Your task to perform on an android device: turn on bluetooth scan Image 0: 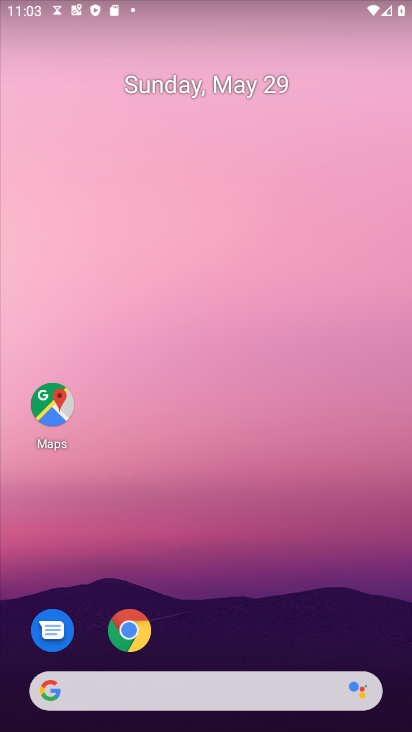
Step 0: drag from (241, 536) to (213, 8)
Your task to perform on an android device: turn on bluetooth scan Image 1: 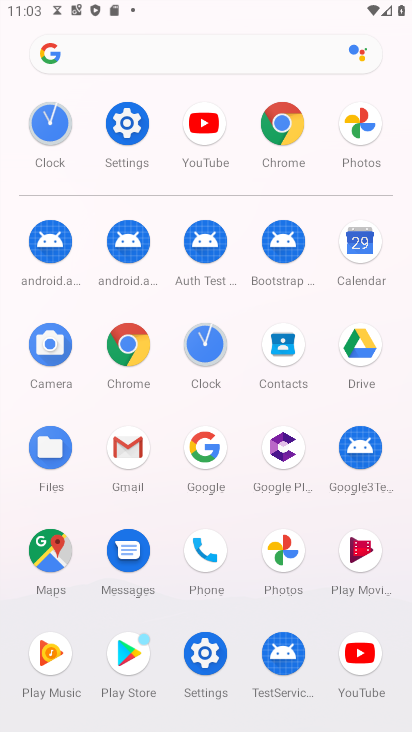
Step 1: click (143, 134)
Your task to perform on an android device: turn on bluetooth scan Image 2: 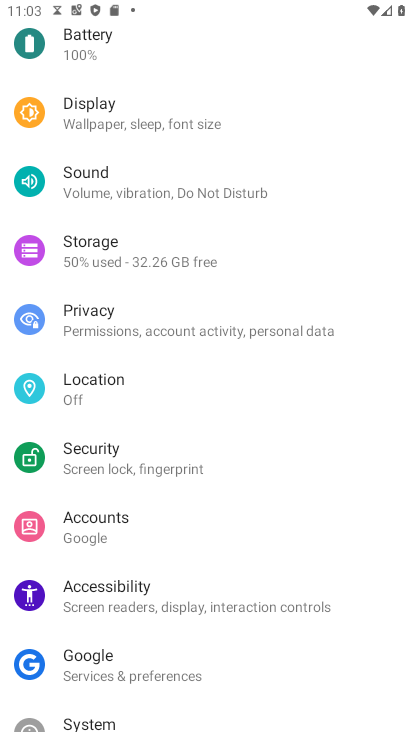
Step 2: drag from (183, 156) to (212, 651)
Your task to perform on an android device: turn on bluetooth scan Image 3: 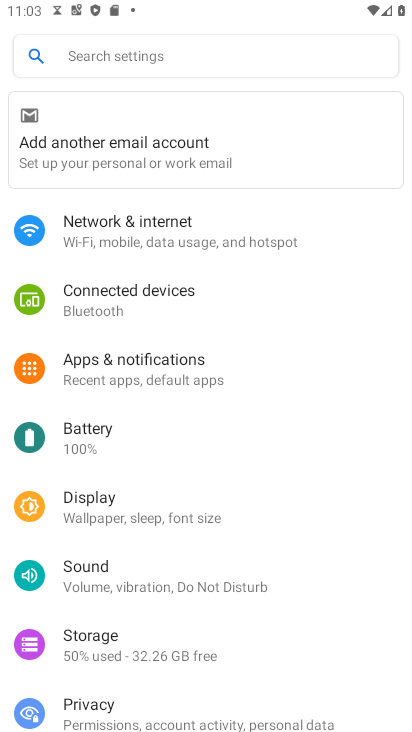
Step 3: click (188, 247)
Your task to perform on an android device: turn on bluetooth scan Image 4: 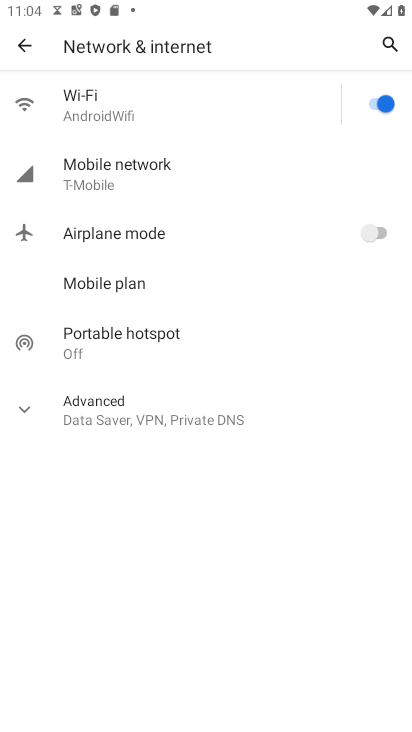
Step 4: click (108, 393)
Your task to perform on an android device: turn on bluetooth scan Image 5: 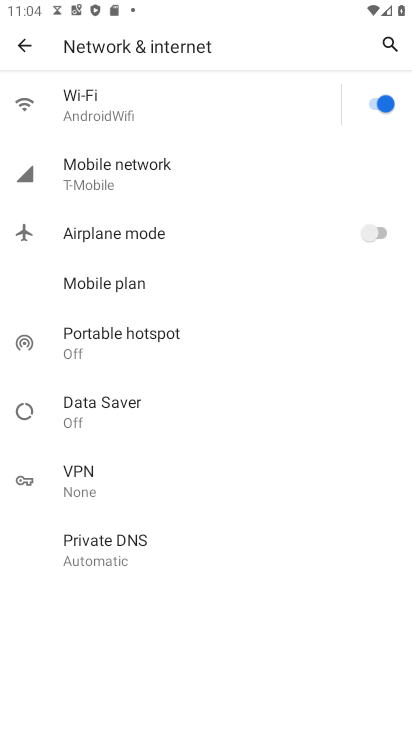
Step 5: press back button
Your task to perform on an android device: turn on bluetooth scan Image 6: 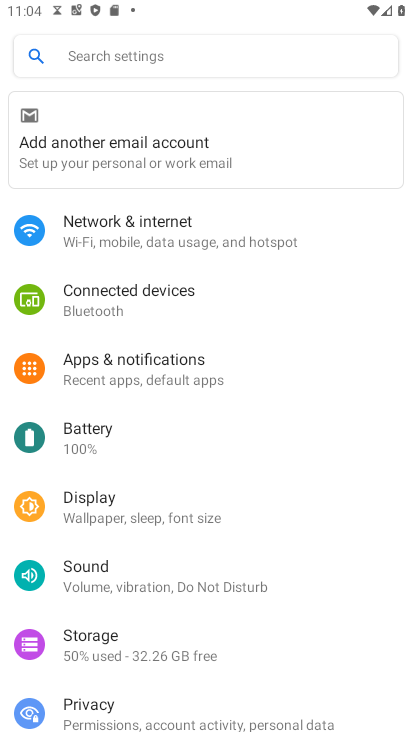
Step 6: drag from (220, 564) to (308, 161)
Your task to perform on an android device: turn on bluetooth scan Image 7: 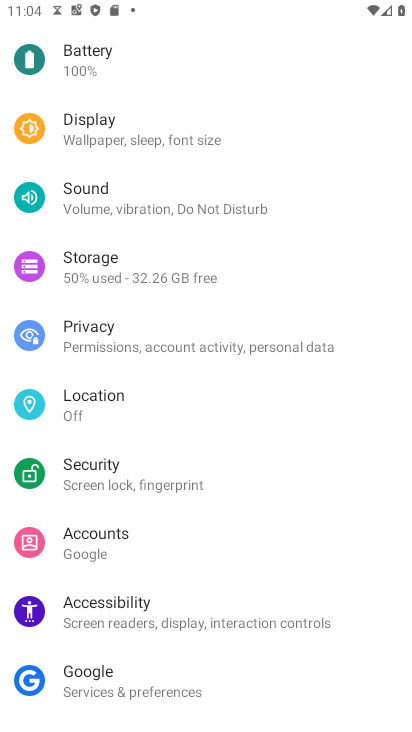
Step 7: drag from (265, 556) to (299, 133)
Your task to perform on an android device: turn on bluetooth scan Image 8: 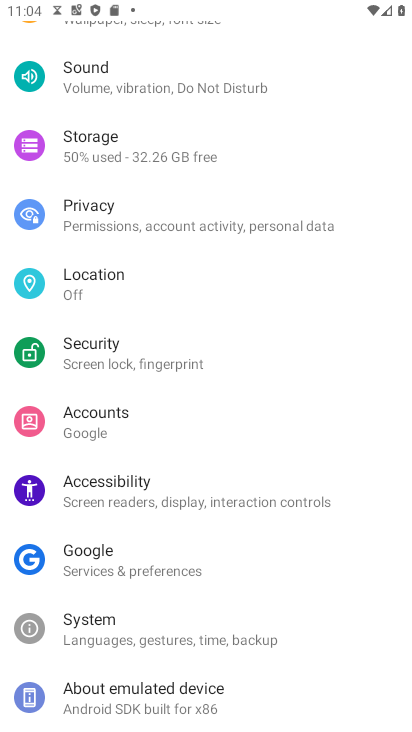
Step 8: drag from (252, 485) to (284, 140)
Your task to perform on an android device: turn on bluetooth scan Image 9: 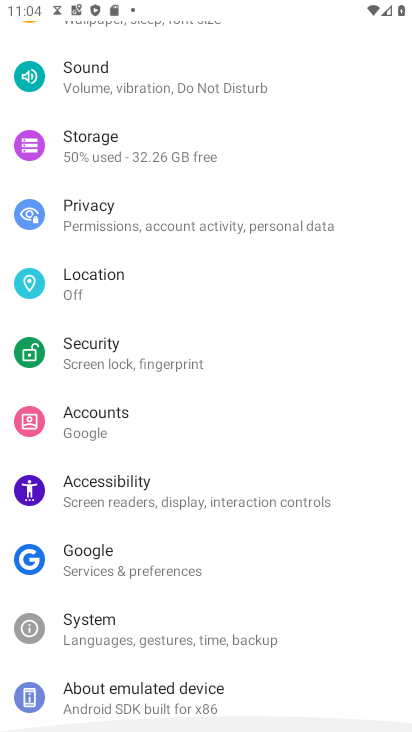
Step 9: drag from (284, 125) to (261, 592)
Your task to perform on an android device: turn on bluetooth scan Image 10: 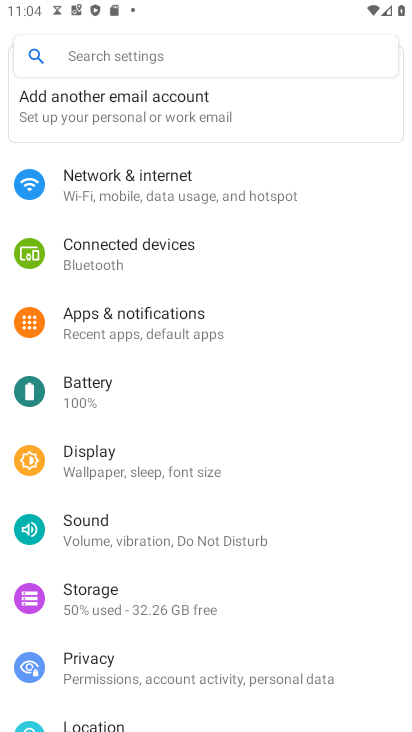
Step 10: drag from (247, 94) to (267, 542)
Your task to perform on an android device: turn on bluetooth scan Image 11: 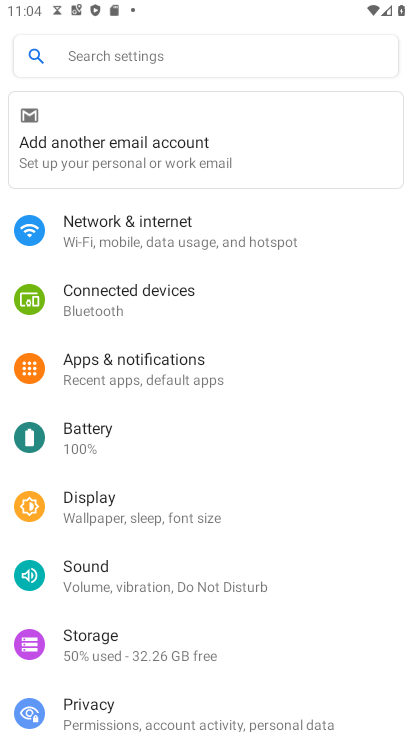
Step 11: drag from (224, 51) to (249, 652)
Your task to perform on an android device: turn on bluetooth scan Image 12: 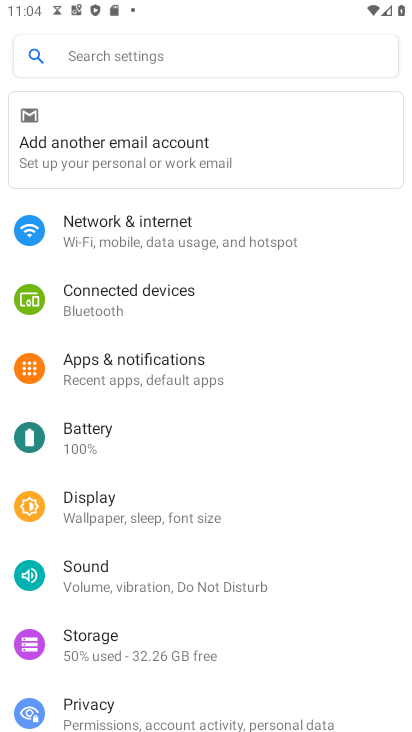
Step 12: drag from (211, 19) to (242, 629)
Your task to perform on an android device: turn on bluetooth scan Image 13: 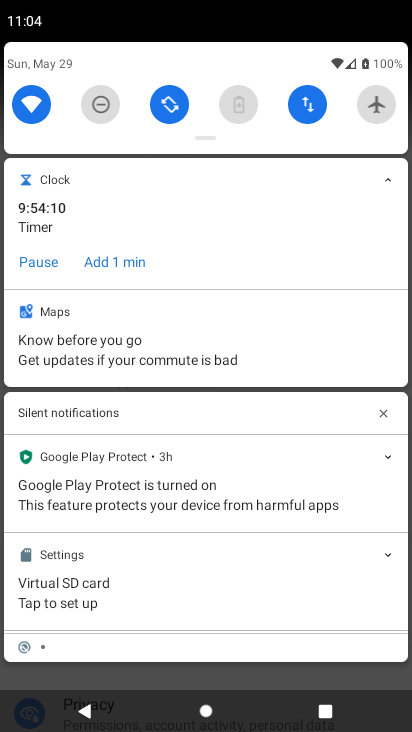
Step 13: drag from (189, 132) to (188, 636)
Your task to perform on an android device: turn on bluetooth scan Image 14: 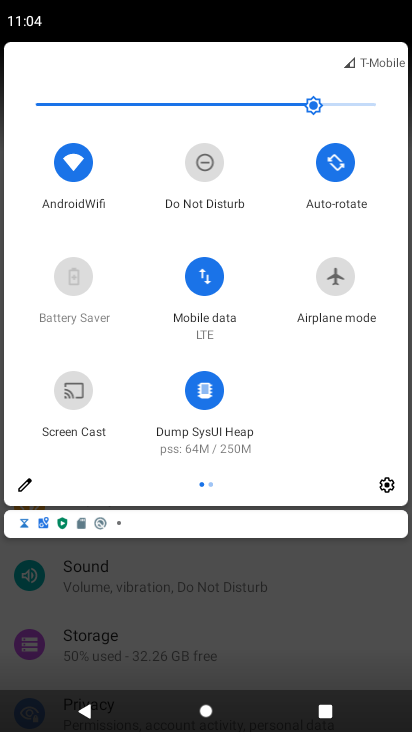
Step 14: drag from (355, 356) to (168, 344)
Your task to perform on an android device: turn on bluetooth scan Image 15: 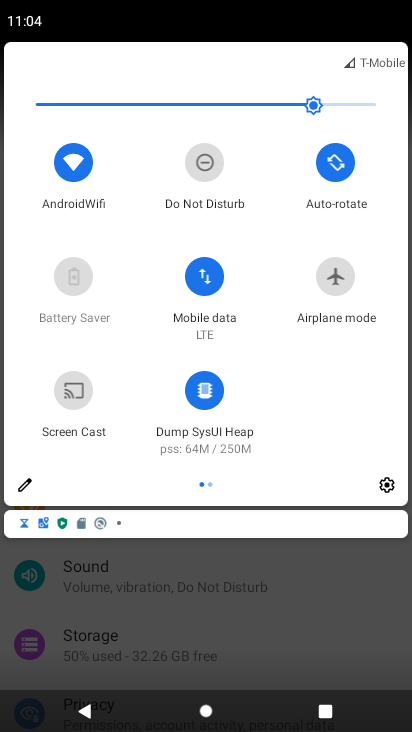
Step 15: drag from (350, 383) to (83, 364)
Your task to perform on an android device: turn on bluetooth scan Image 16: 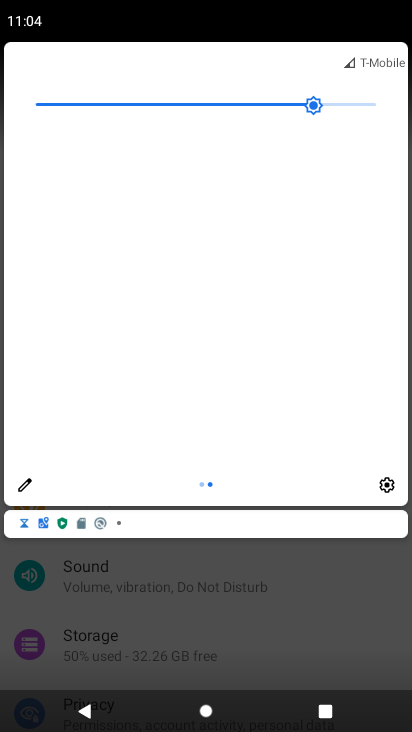
Step 16: drag from (75, 380) to (360, 393)
Your task to perform on an android device: turn on bluetooth scan Image 17: 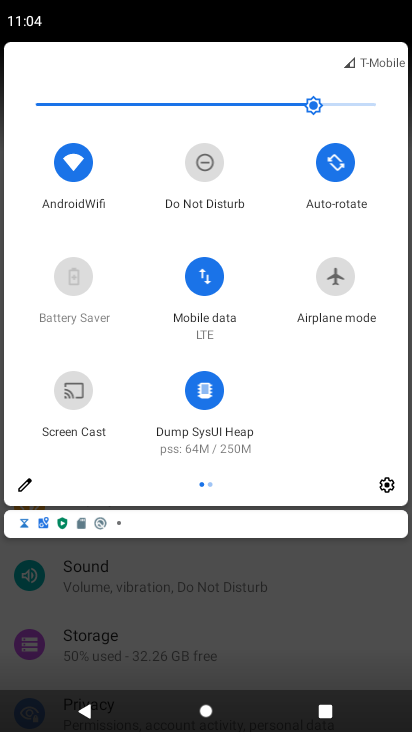
Step 17: drag from (384, 380) to (65, 345)
Your task to perform on an android device: turn on bluetooth scan Image 18: 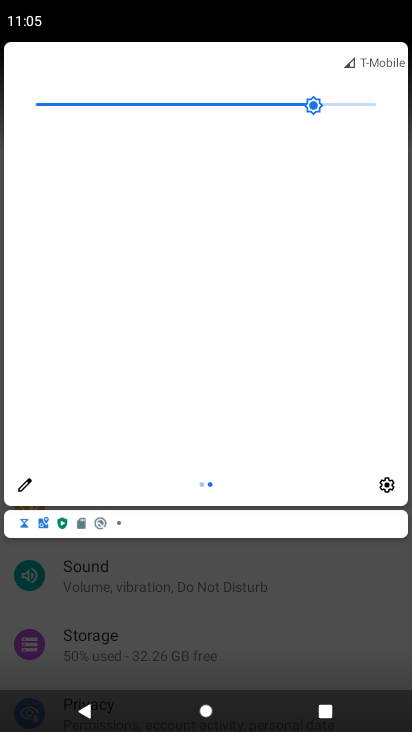
Step 18: press home button
Your task to perform on an android device: turn on bluetooth scan Image 19: 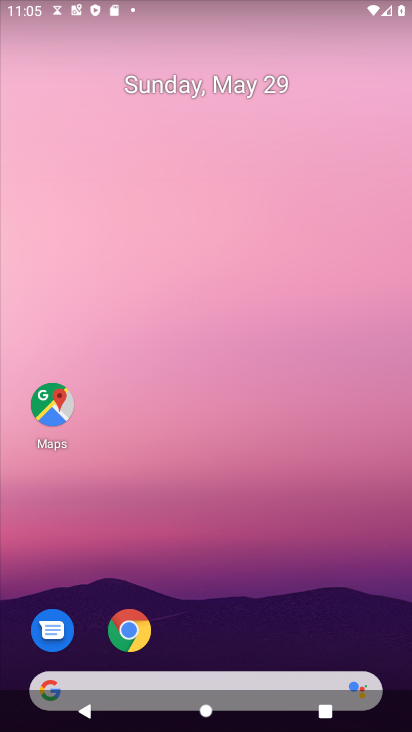
Step 19: drag from (151, 0) to (189, 571)
Your task to perform on an android device: turn on bluetooth scan Image 20: 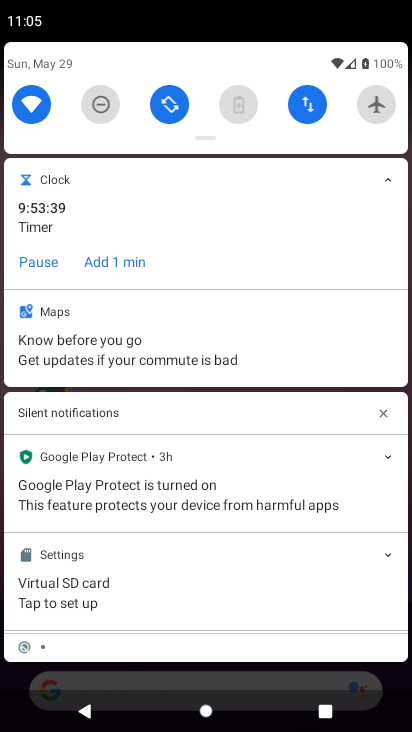
Step 20: drag from (277, 151) to (292, 679)
Your task to perform on an android device: turn on bluetooth scan Image 21: 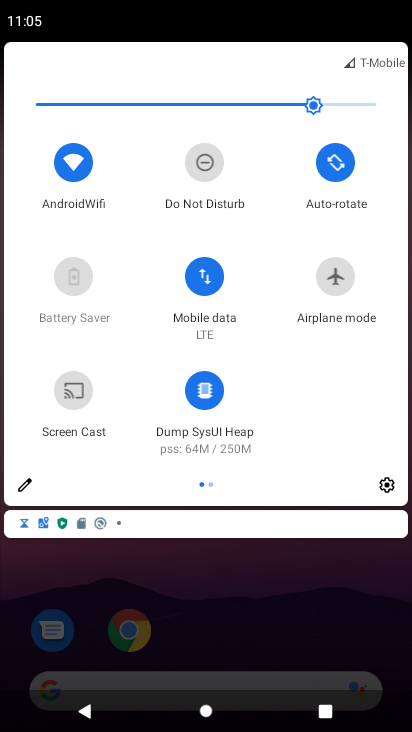
Step 21: drag from (308, 377) to (56, 401)
Your task to perform on an android device: turn on bluetooth scan Image 22: 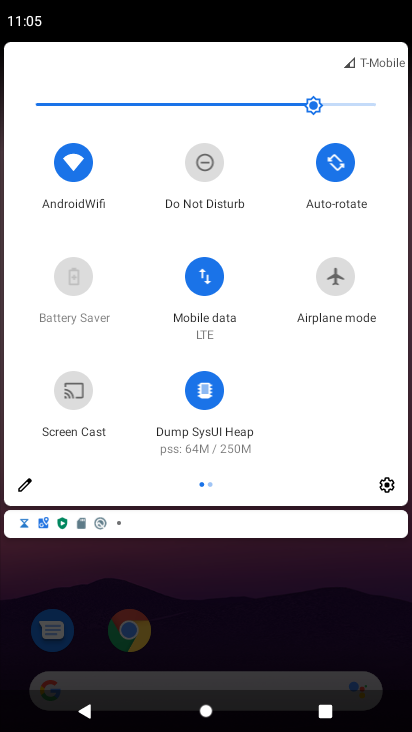
Step 22: drag from (379, 392) to (53, 448)
Your task to perform on an android device: turn on bluetooth scan Image 23: 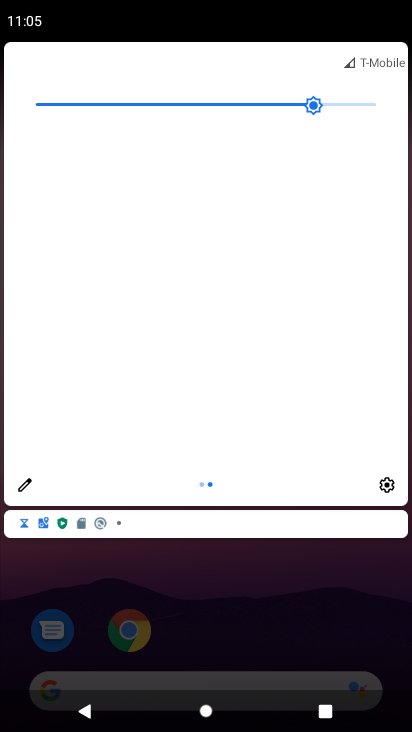
Step 23: click (213, 484)
Your task to perform on an android device: turn on bluetooth scan Image 24: 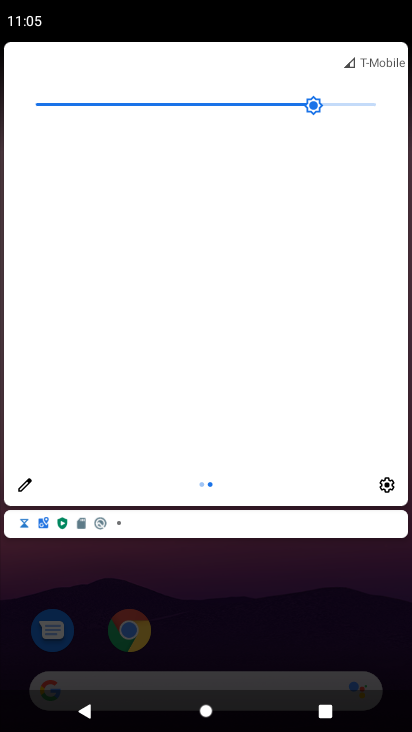
Step 24: click (213, 484)
Your task to perform on an android device: turn on bluetooth scan Image 25: 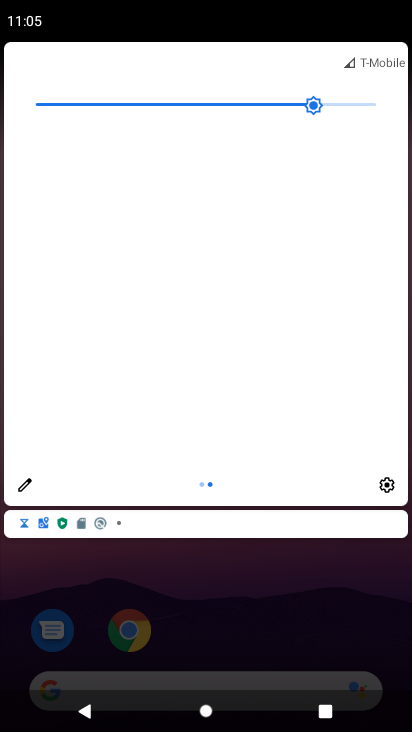
Step 25: click (385, 483)
Your task to perform on an android device: turn on bluetooth scan Image 26: 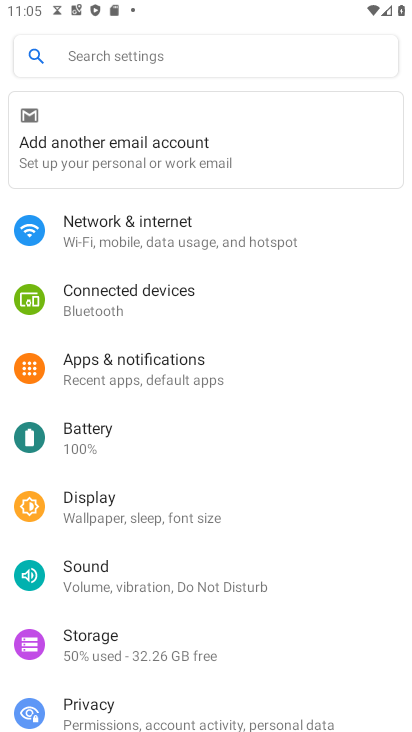
Step 26: click (188, 44)
Your task to perform on an android device: turn on bluetooth scan Image 27: 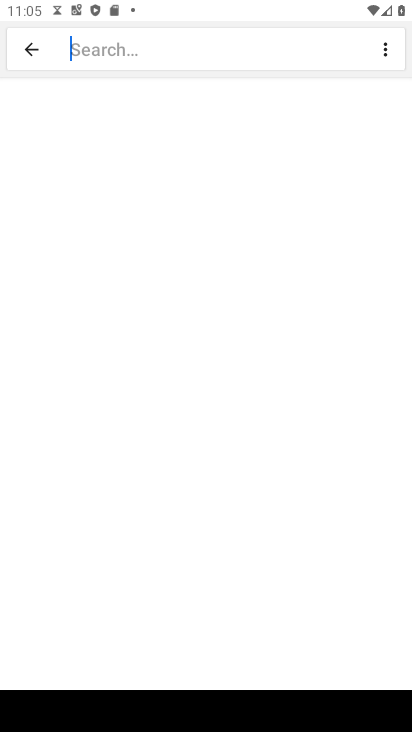
Step 27: type "bluetooth"
Your task to perform on an android device: turn on bluetooth scan Image 28: 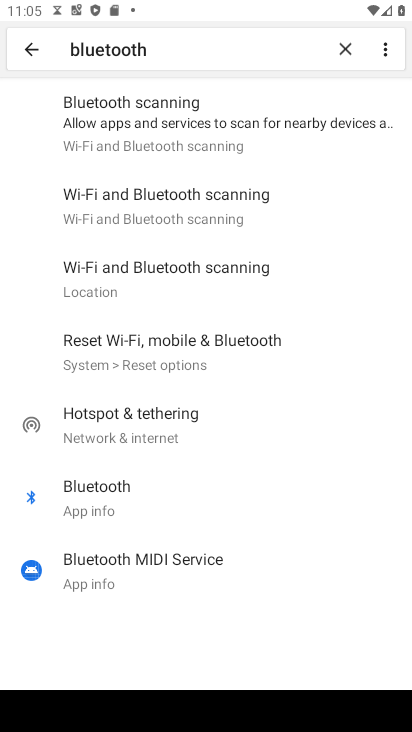
Step 28: click (206, 128)
Your task to perform on an android device: turn on bluetooth scan Image 29: 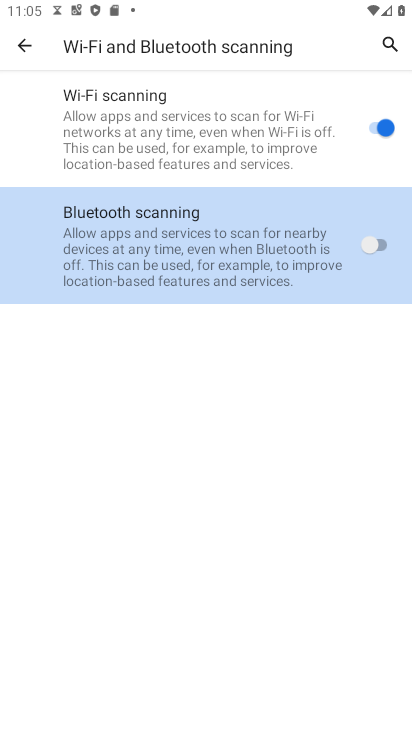
Step 29: click (360, 237)
Your task to perform on an android device: turn on bluetooth scan Image 30: 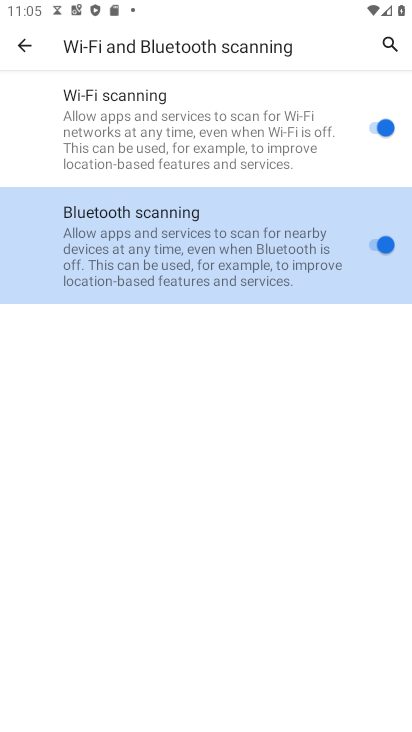
Step 30: task complete